Your task to perform on an android device: refresh tabs in the chrome app Image 0: 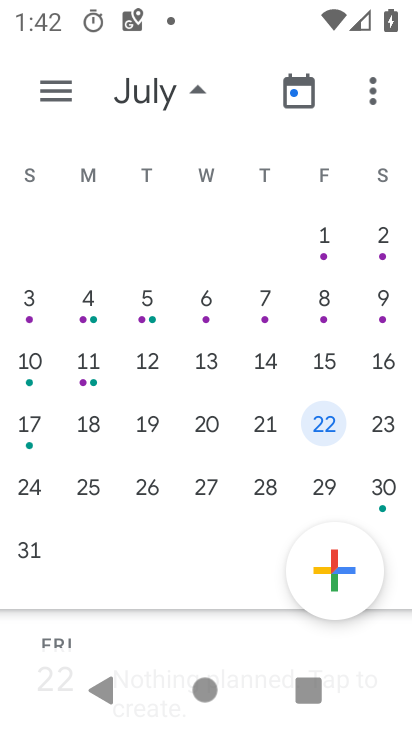
Step 0: press home button
Your task to perform on an android device: refresh tabs in the chrome app Image 1: 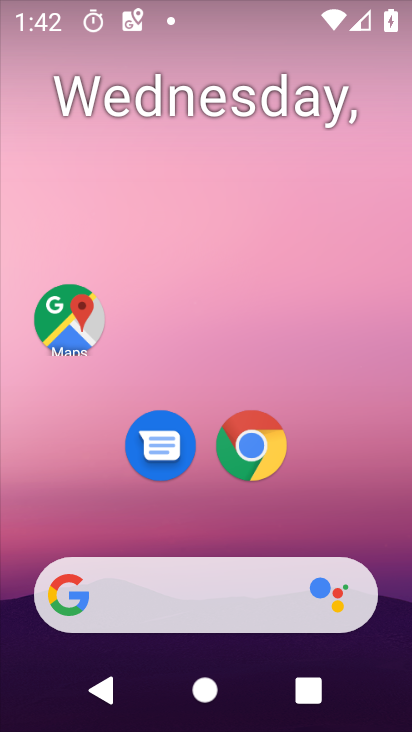
Step 1: click (241, 456)
Your task to perform on an android device: refresh tabs in the chrome app Image 2: 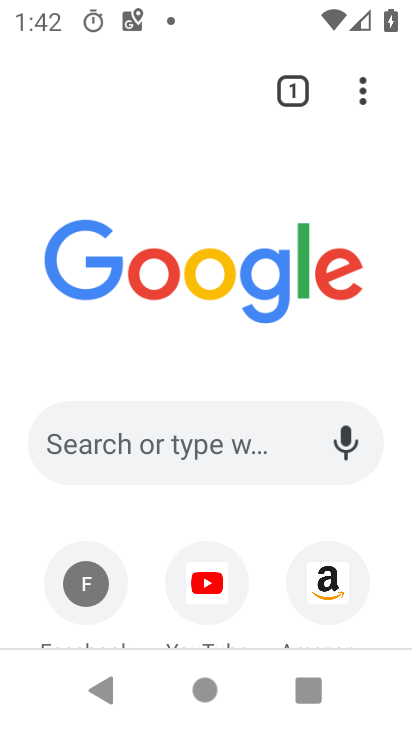
Step 2: click (367, 92)
Your task to perform on an android device: refresh tabs in the chrome app Image 3: 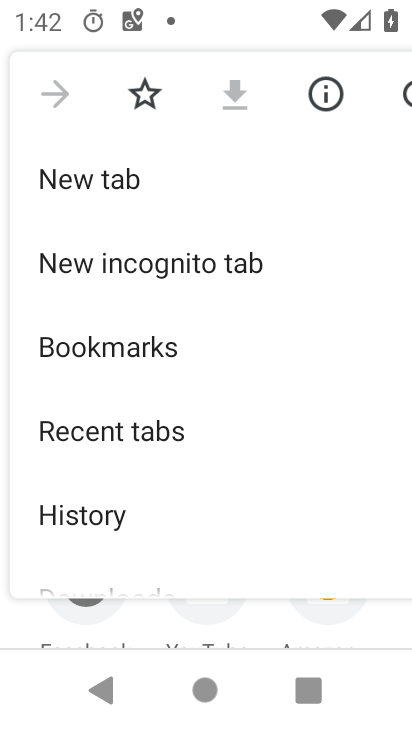
Step 3: click (406, 103)
Your task to perform on an android device: refresh tabs in the chrome app Image 4: 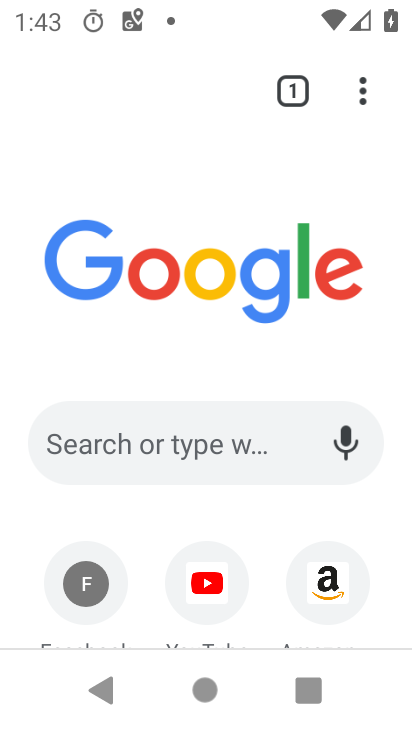
Step 4: task complete